Your task to perform on an android device: check out phone information Image 0: 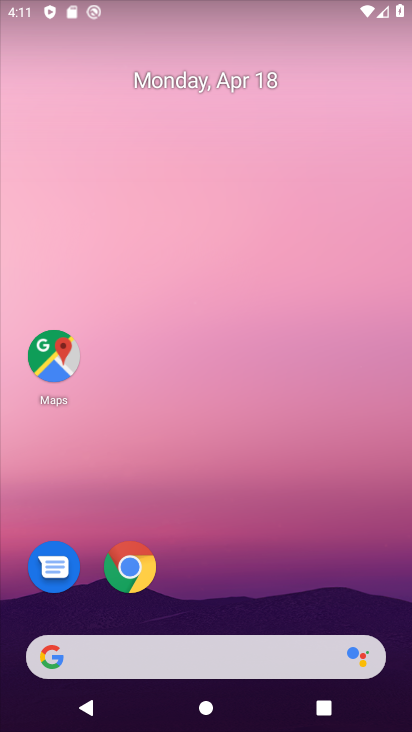
Step 0: drag from (220, 607) to (315, 53)
Your task to perform on an android device: check out phone information Image 1: 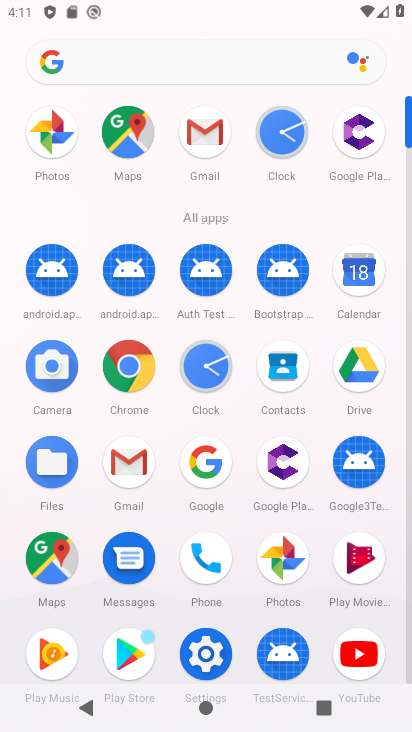
Step 1: click (212, 642)
Your task to perform on an android device: check out phone information Image 2: 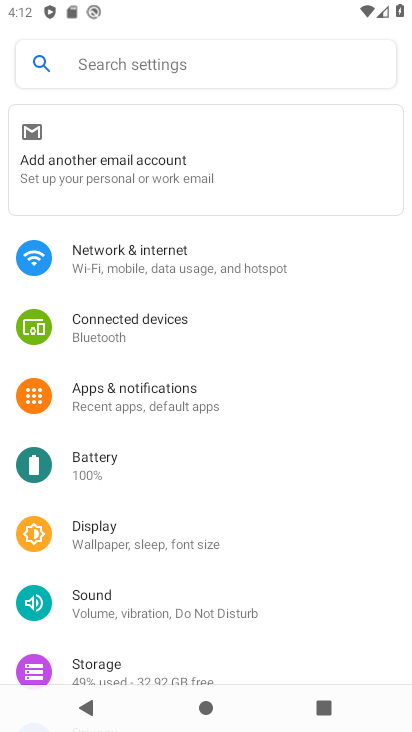
Step 2: drag from (205, 623) to (357, 125)
Your task to perform on an android device: check out phone information Image 3: 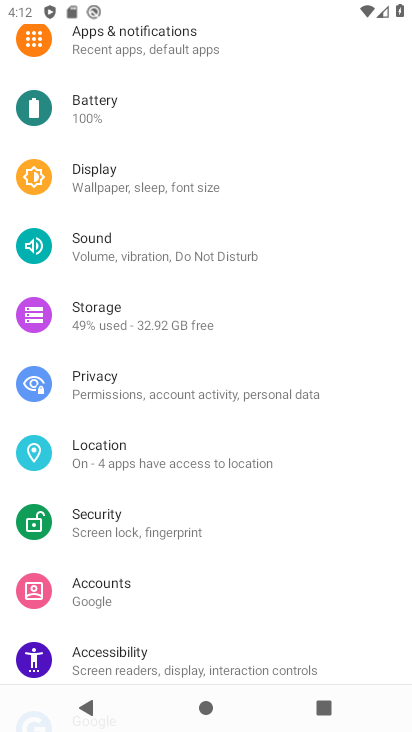
Step 3: drag from (153, 664) to (291, 122)
Your task to perform on an android device: check out phone information Image 4: 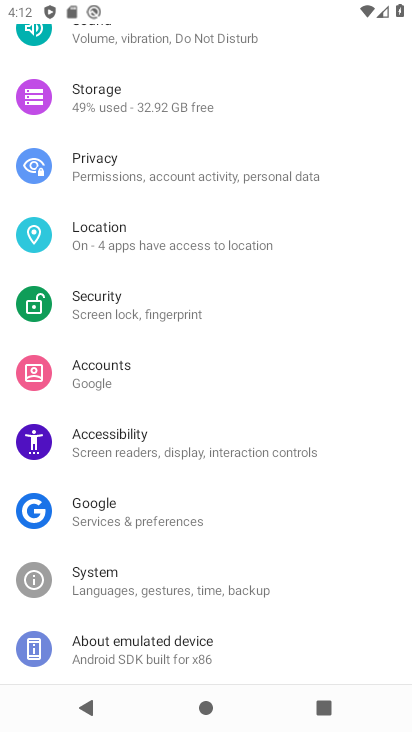
Step 4: click (213, 651)
Your task to perform on an android device: check out phone information Image 5: 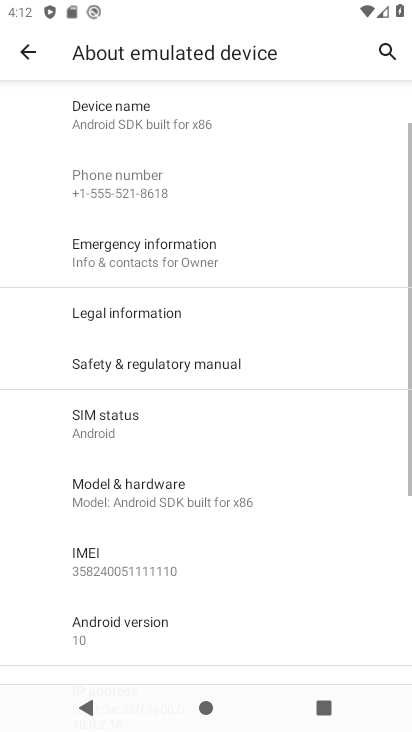
Step 5: task complete